Your task to perform on an android device: open a new tab in the chrome app Image 0: 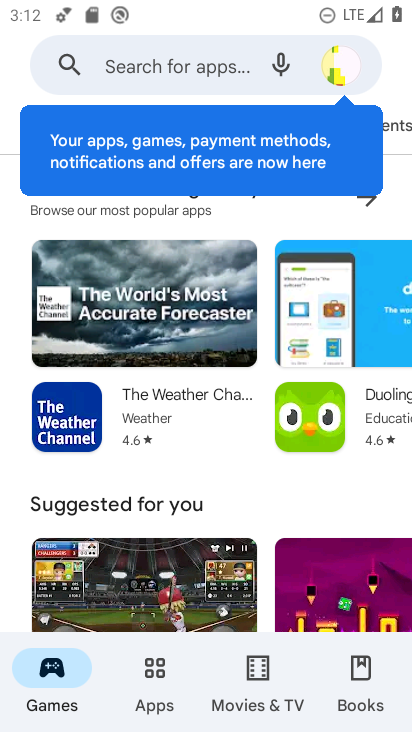
Step 0: press home button
Your task to perform on an android device: open a new tab in the chrome app Image 1: 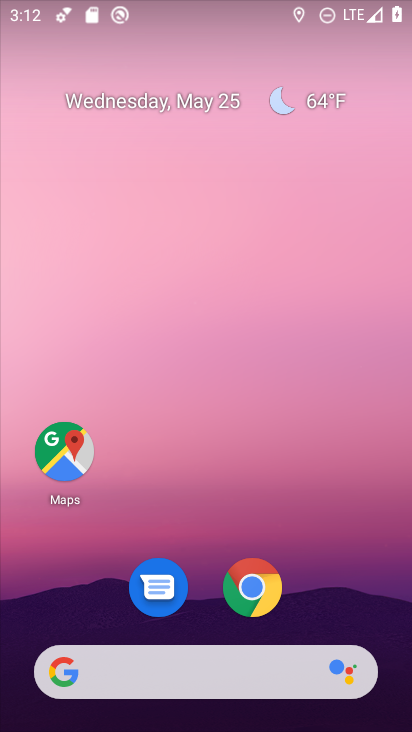
Step 1: click (267, 590)
Your task to perform on an android device: open a new tab in the chrome app Image 2: 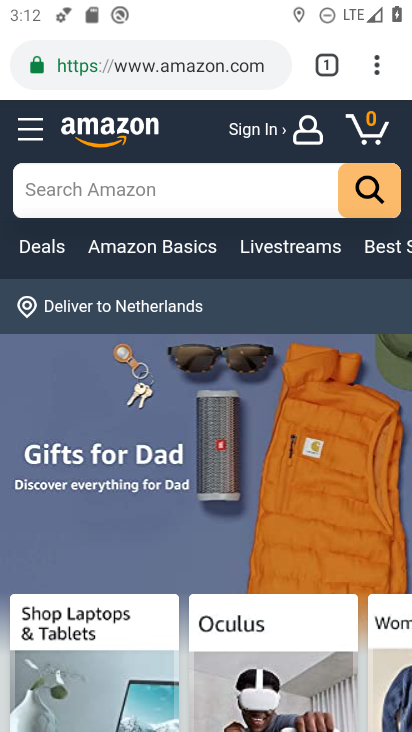
Step 2: click (371, 74)
Your task to perform on an android device: open a new tab in the chrome app Image 3: 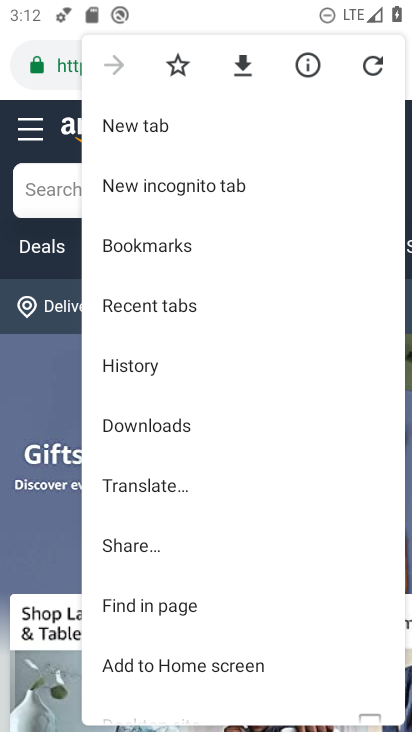
Step 3: click (209, 130)
Your task to perform on an android device: open a new tab in the chrome app Image 4: 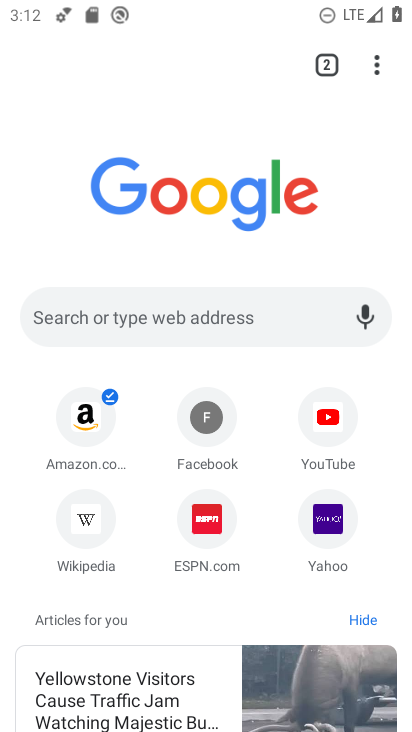
Step 4: task complete